Your task to perform on an android device: Open Youtube and go to "Your channel" Image 0: 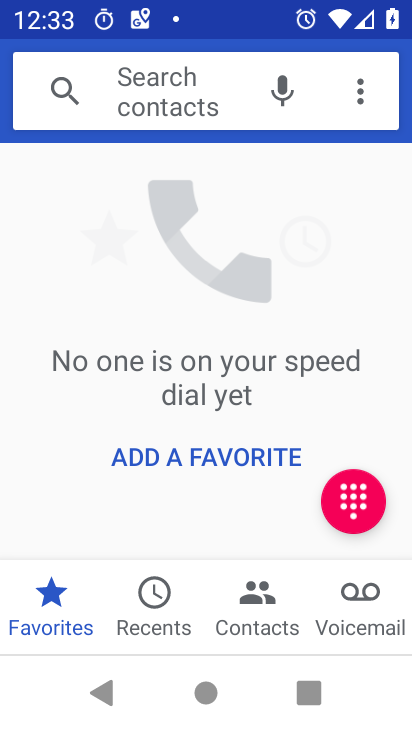
Step 0: press home button
Your task to perform on an android device: Open Youtube and go to "Your channel" Image 1: 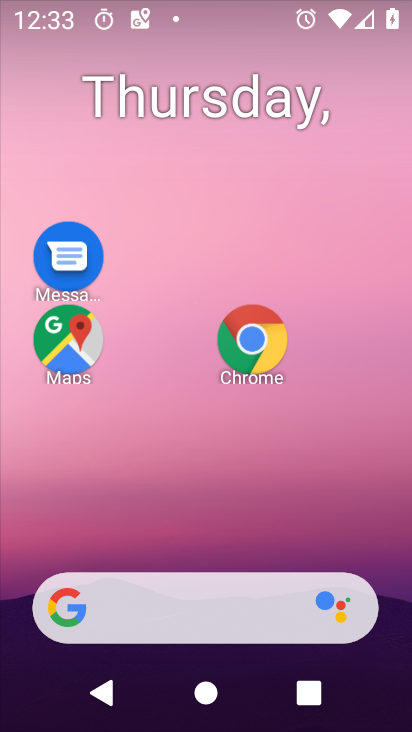
Step 1: drag from (206, 513) to (209, 39)
Your task to perform on an android device: Open Youtube and go to "Your channel" Image 2: 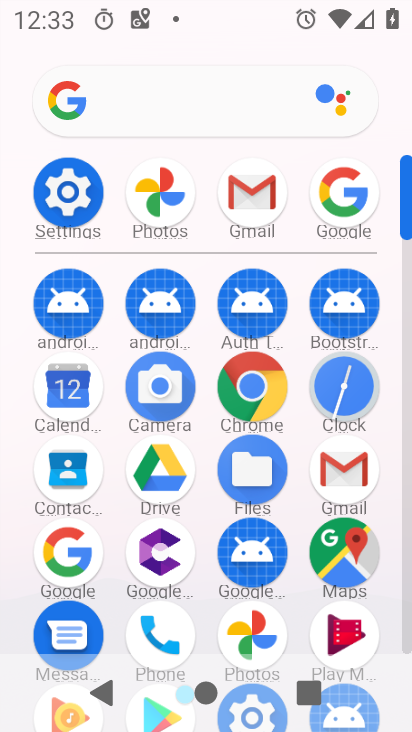
Step 2: drag from (200, 588) to (224, 114)
Your task to perform on an android device: Open Youtube and go to "Your channel" Image 3: 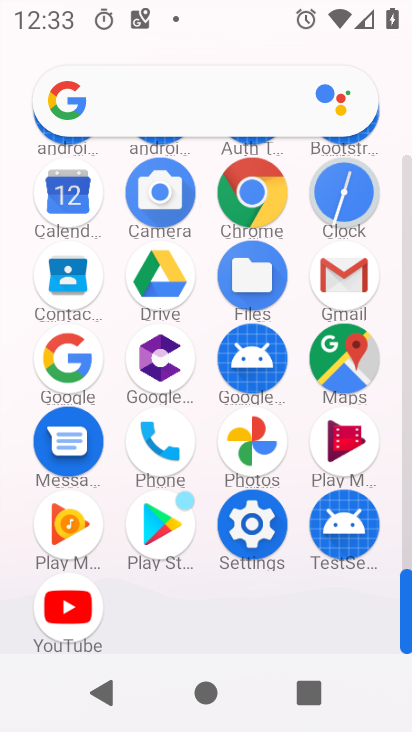
Step 3: click (67, 615)
Your task to perform on an android device: Open Youtube and go to "Your channel" Image 4: 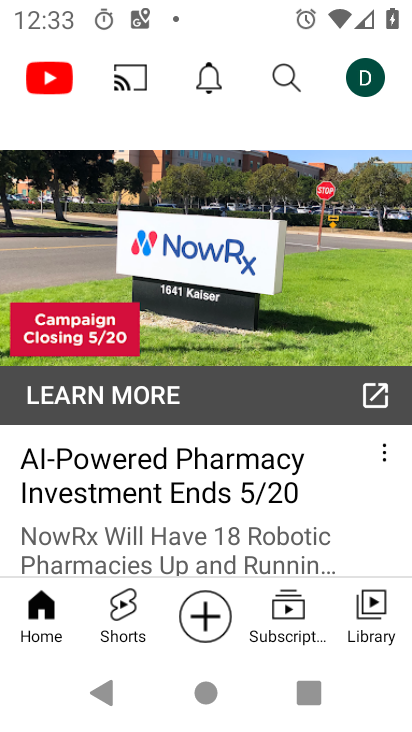
Step 4: click (366, 76)
Your task to perform on an android device: Open Youtube and go to "Your channel" Image 5: 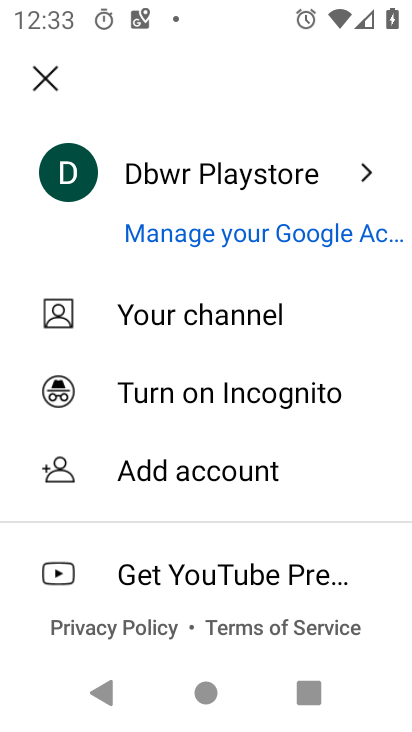
Step 5: click (233, 311)
Your task to perform on an android device: Open Youtube and go to "Your channel" Image 6: 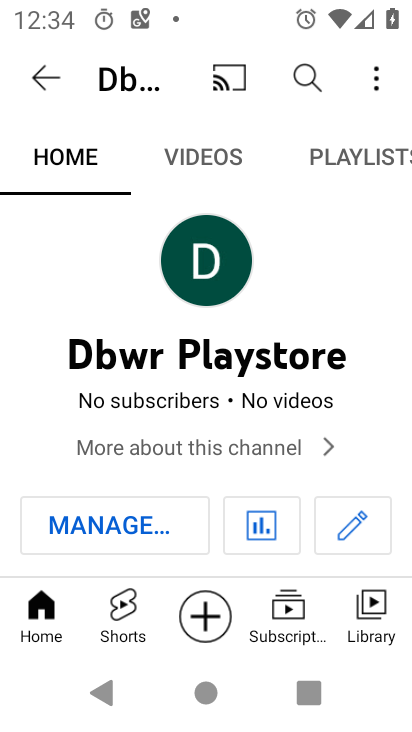
Step 6: task complete